Your task to perform on an android device: Open Google Maps Image 0: 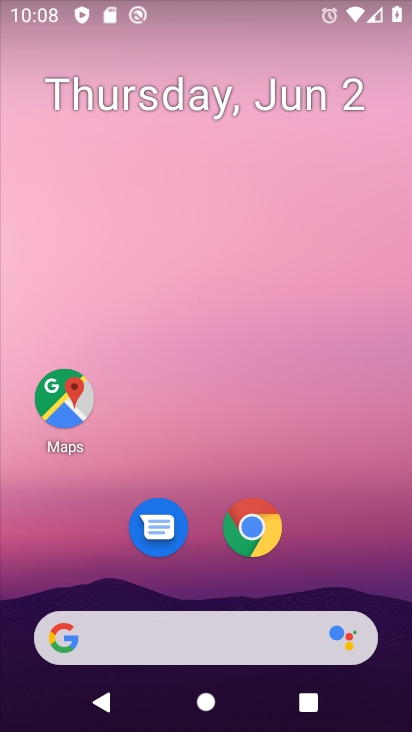
Step 0: click (75, 391)
Your task to perform on an android device: Open Google Maps Image 1: 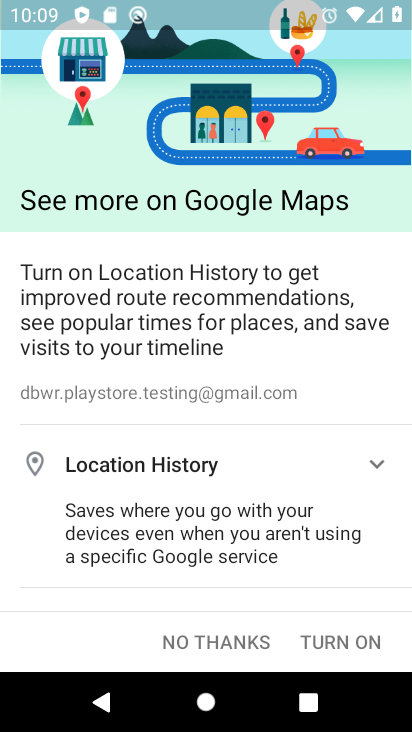
Step 1: task complete